Your task to perform on an android device: Go to eBay Image 0: 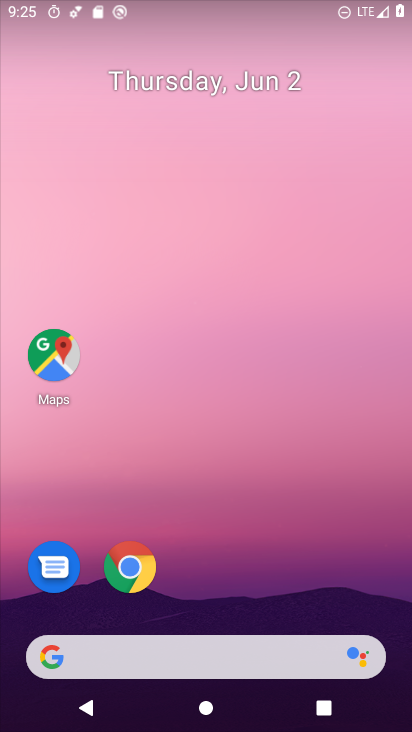
Step 0: drag from (353, 527) to (339, 125)
Your task to perform on an android device: Go to eBay Image 1: 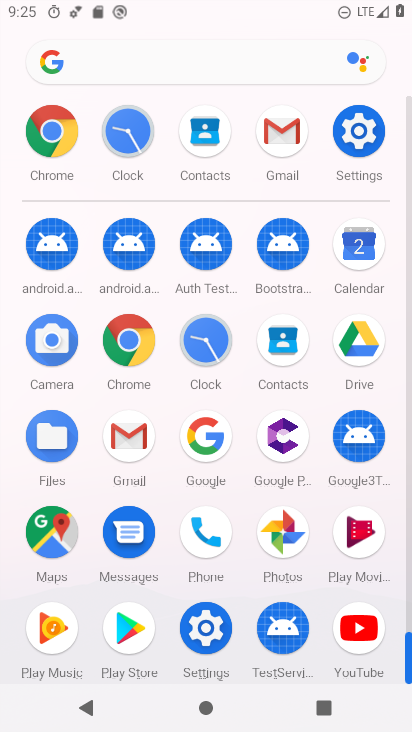
Step 1: click (116, 353)
Your task to perform on an android device: Go to eBay Image 2: 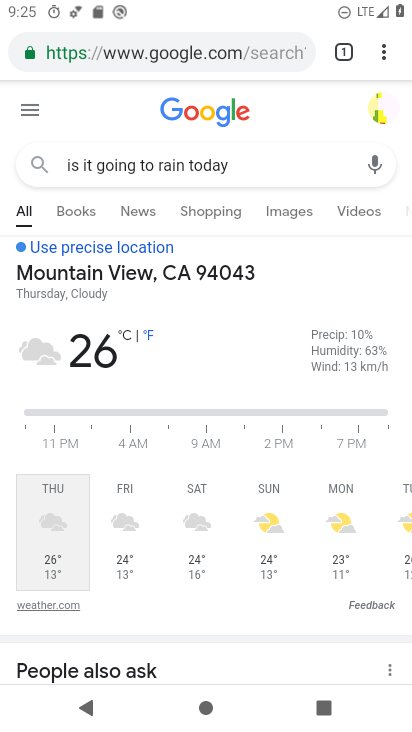
Step 2: click (225, 52)
Your task to perform on an android device: Go to eBay Image 3: 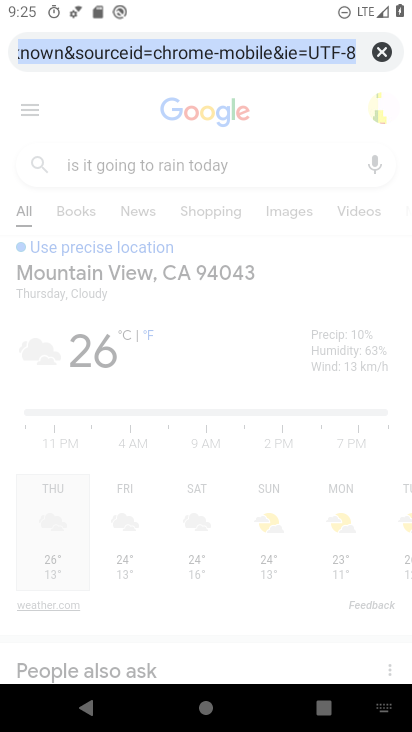
Step 3: click (390, 58)
Your task to perform on an android device: Go to eBay Image 4: 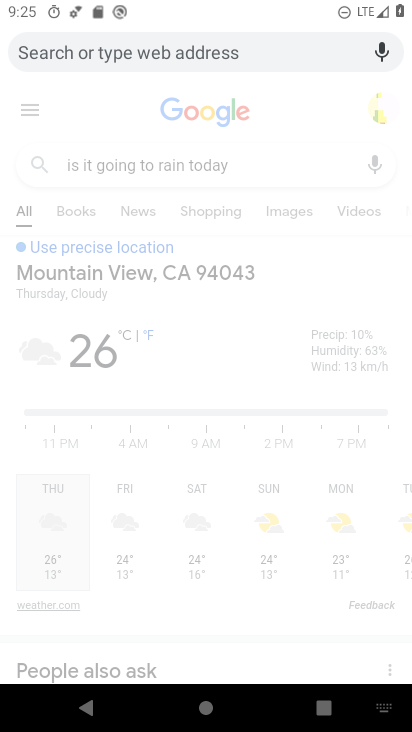
Step 4: type "ebay"
Your task to perform on an android device: Go to eBay Image 5: 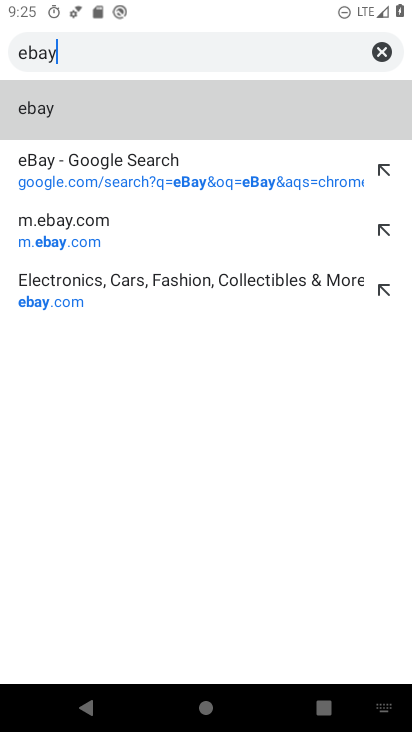
Step 5: click (59, 124)
Your task to perform on an android device: Go to eBay Image 6: 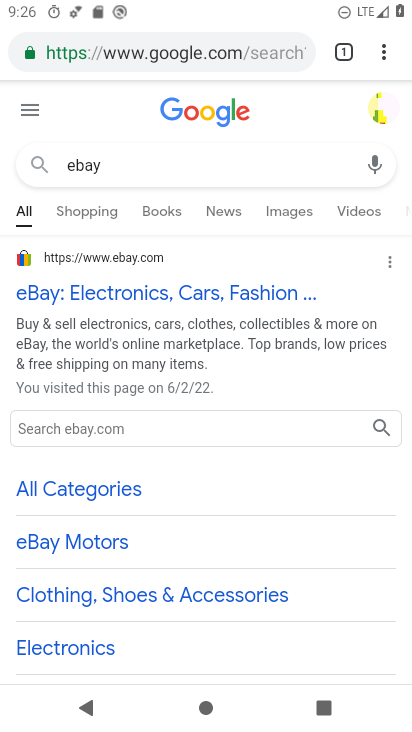
Step 6: task complete